Your task to perform on an android device: toggle notifications settings in the gmail app Image 0: 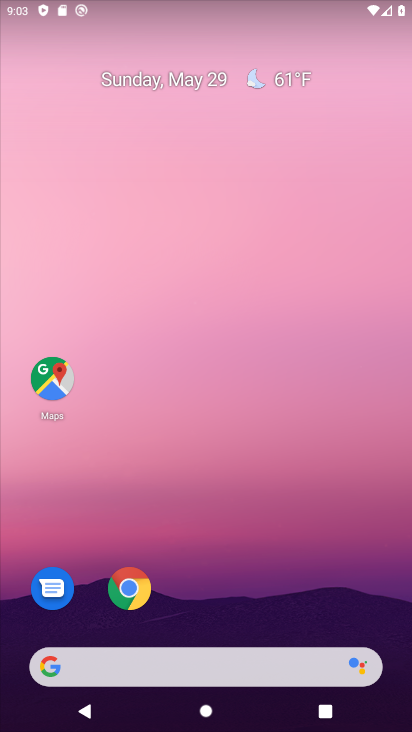
Step 0: drag from (321, 495) to (211, 40)
Your task to perform on an android device: toggle notifications settings in the gmail app Image 1: 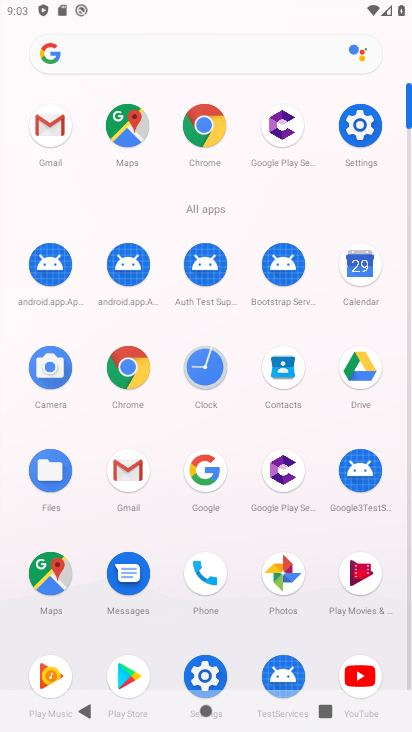
Step 1: click (43, 126)
Your task to perform on an android device: toggle notifications settings in the gmail app Image 2: 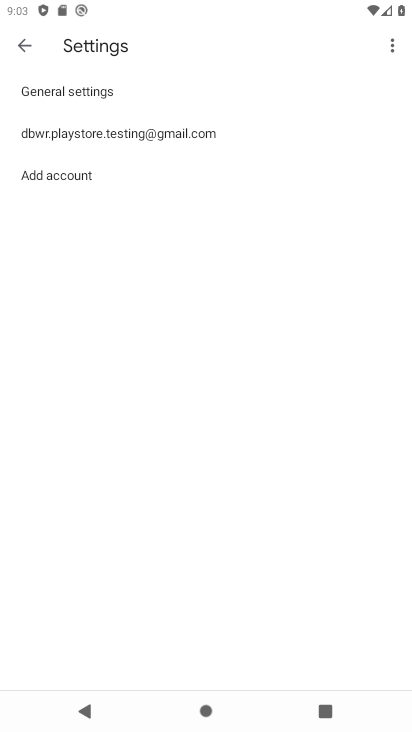
Step 2: click (54, 132)
Your task to perform on an android device: toggle notifications settings in the gmail app Image 3: 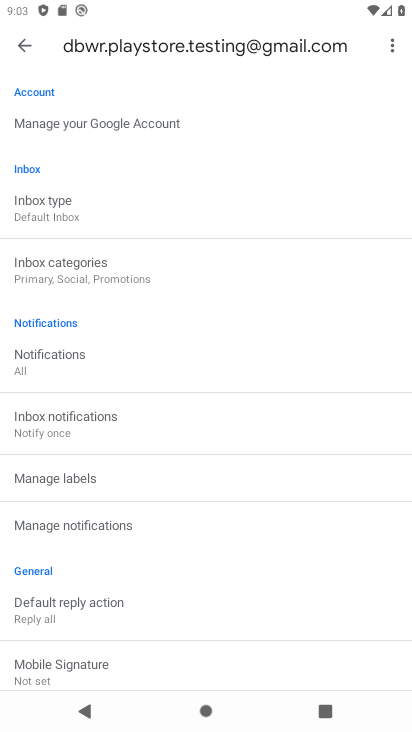
Step 3: click (92, 542)
Your task to perform on an android device: toggle notifications settings in the gmail app Image 4: 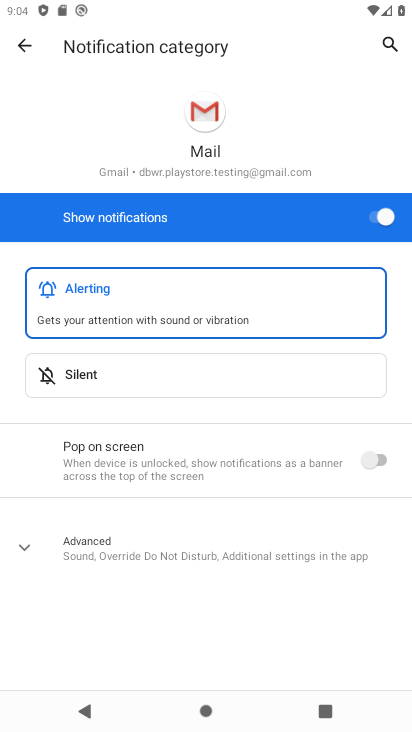
Step 4: click (374, 207)
Your task to perform on an android device: toggle notifications settings in the gmail app Image 5: 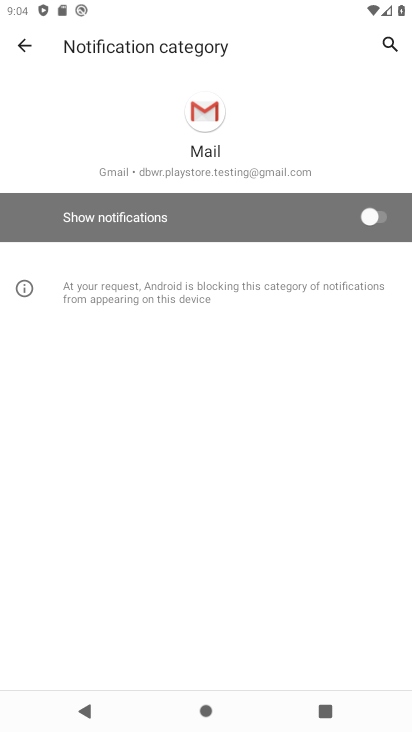
Step 5: task complete